Your task to perform on an android device: What's the weather? Image 0: 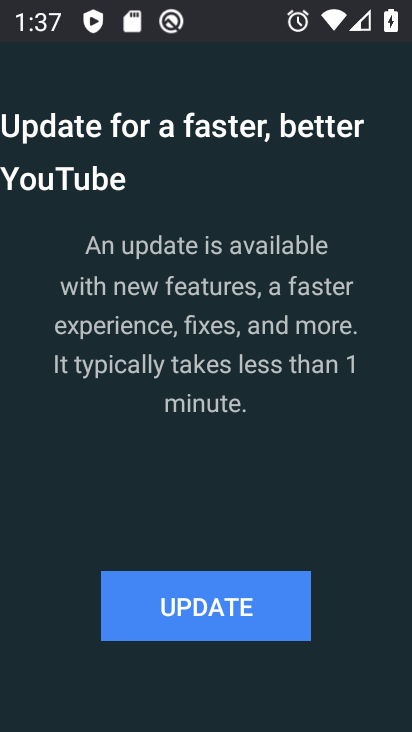
Step 0: click (394, 428)
Your task to perform on an android device: What's the weather? Image 1: 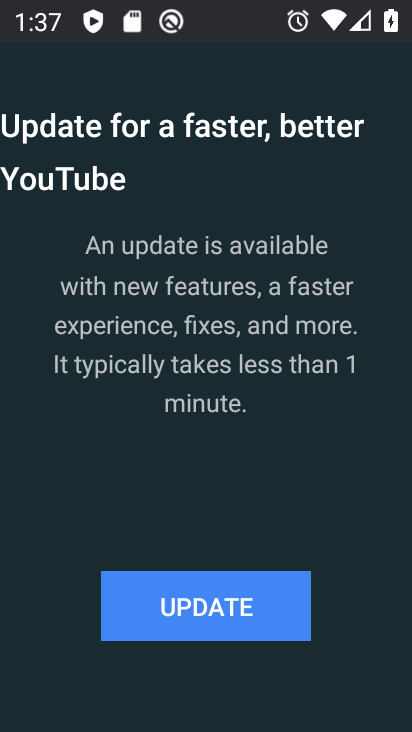
Step 1: press back button
Your task to perform on an android device: What's the weather? Image 2: 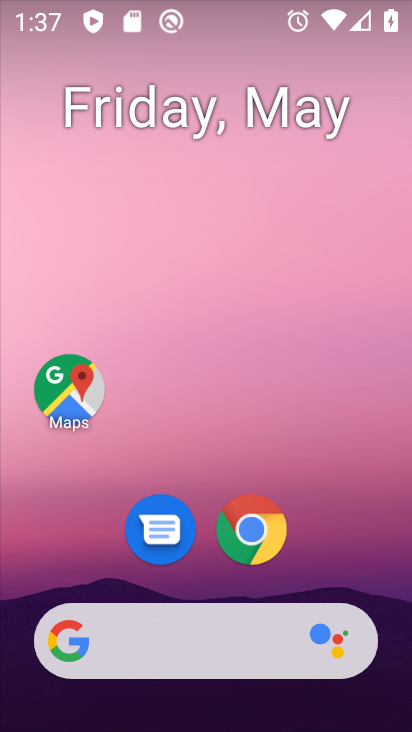
Step 2: drag from (401, 533) to (375, 234)
Your task to perform on an android device: What's the weather? Image 3: 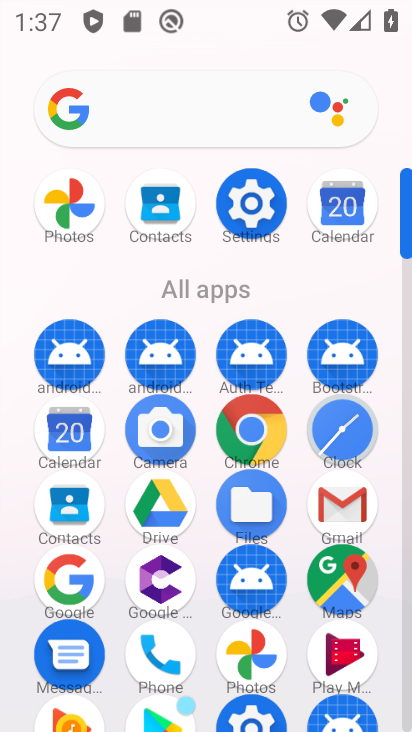
Step 3: click (73, 567)
Your task to perform on an android device: What's the weather? Image 4: 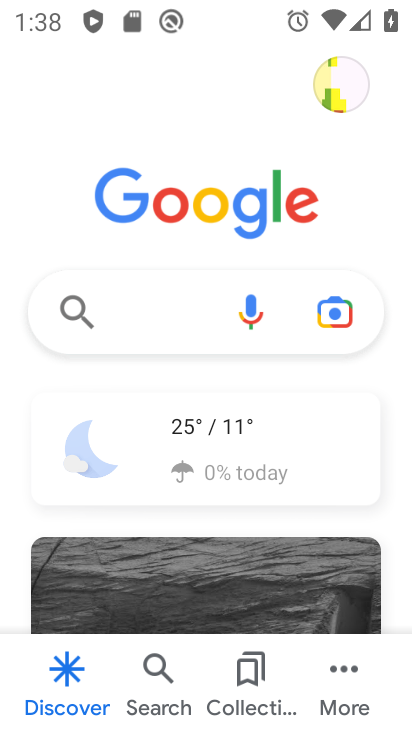
Step 4: click (173, 437)
Your task to perform on an android device: What's the weather? Image 5: 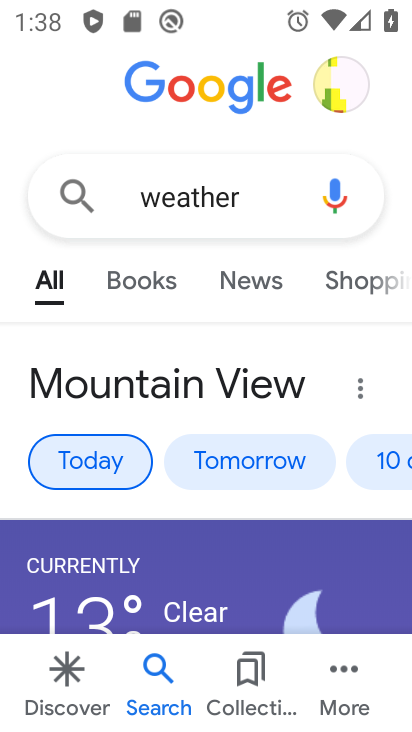
Step 5: click (92, 453)
Your task to perform on an android device: What's the weather? Image 6: 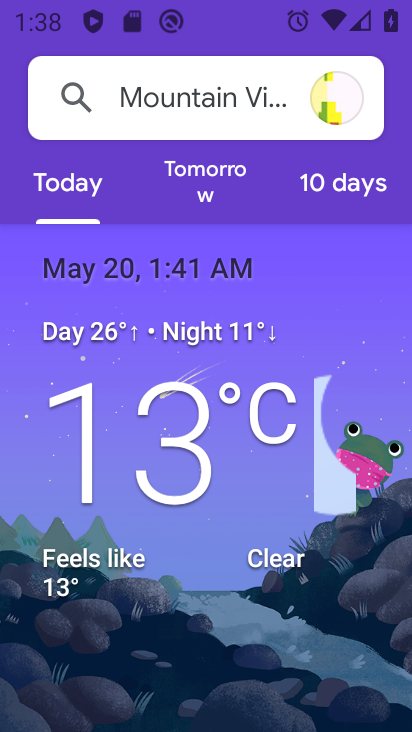
Step 6: task complete